Your task to perform on an android device: delete a single message in the gmail app Image 0: 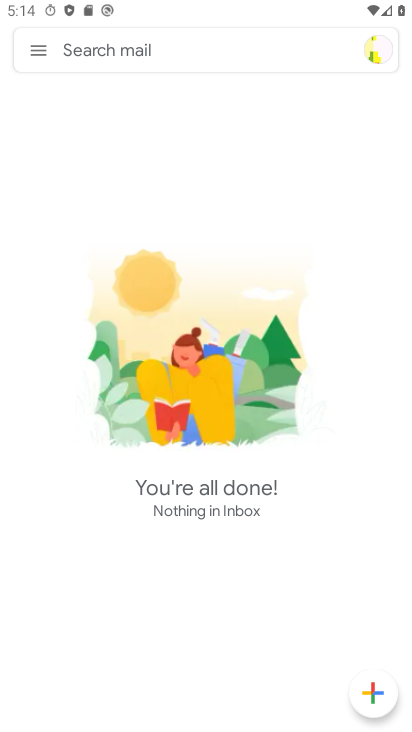
Step 0: task impossible